Your task to perform on an android device: delete location history Image 0: 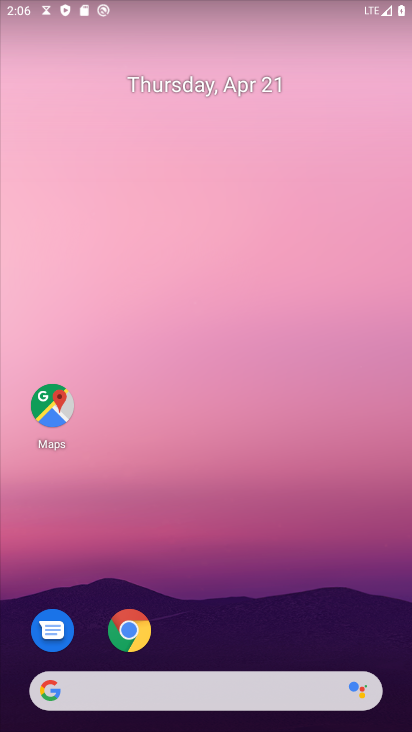
Step 0: drag from (338, 634) to (356, 51)
Your task to perform on an android device: delete location history Image 1: 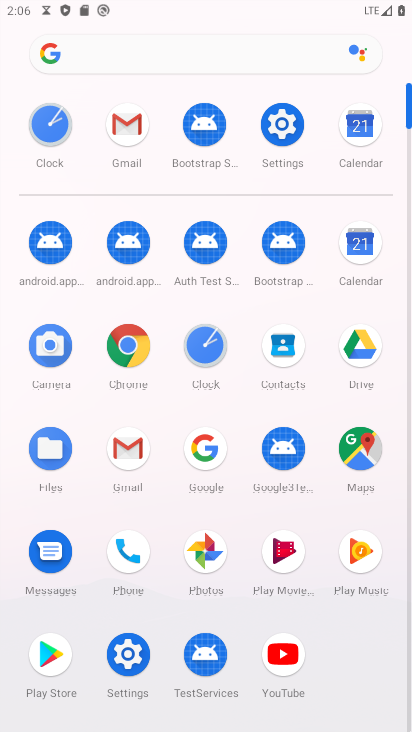
Step 1: click (351, 454)
Your task to perform on an android device: delete location history Image 2: 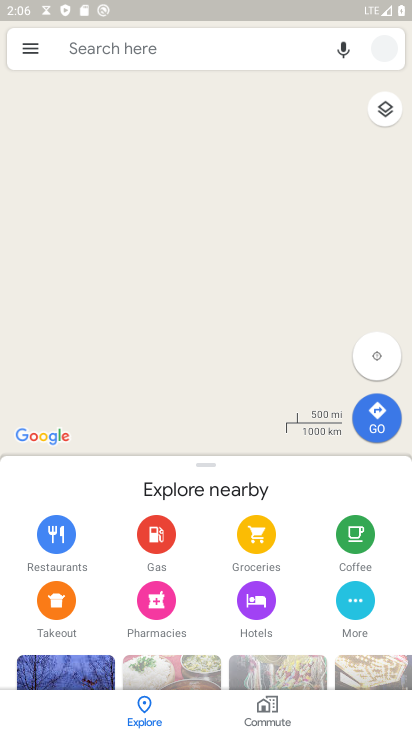
Step 2: click (31, 53)
Your task to perform on an android device: delete location history Image 3: 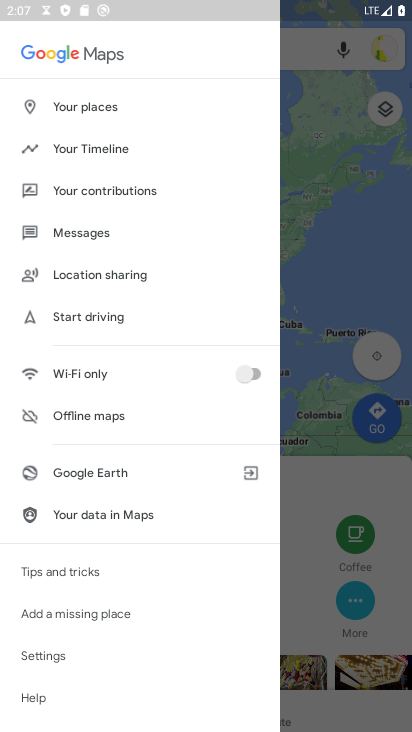
Step 3: click (78, 146)
Your task to perform on an android device: delete location history Image 4: 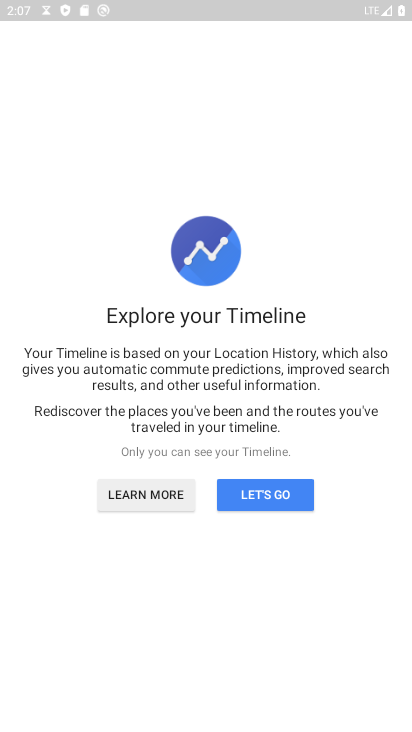
Step 4: click (259, 495)
Your task to perform on an android device: delete location history Image 5: 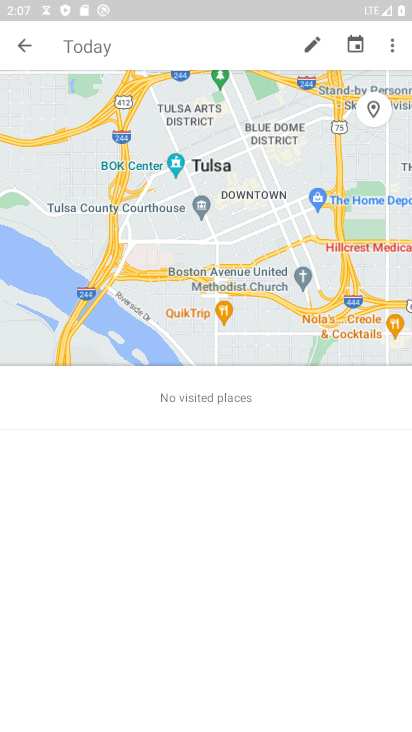
Step 5: click (394, 49)
Your task to perform on an android device: delete location history Image 6: 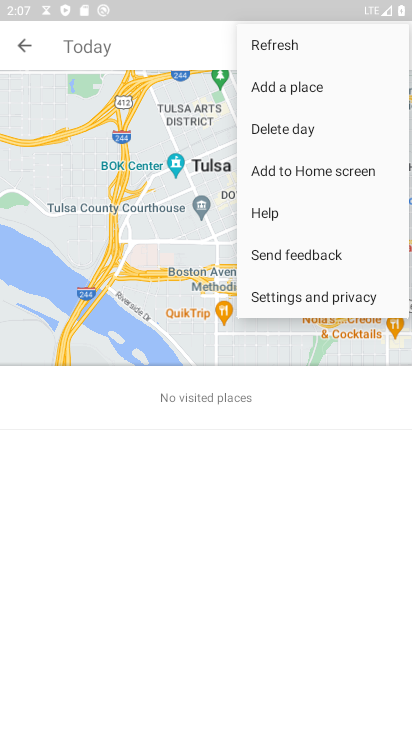
Step 6: click (291, 296)
Your task to perform on an android device: delete location history Image 7: 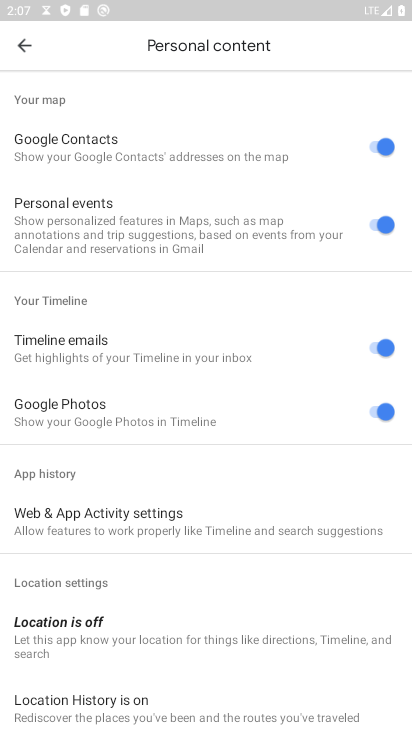
Step 7: drag from (152, 603) to (169, 191)
Your task to perform on an android device: delete location history Image 8: 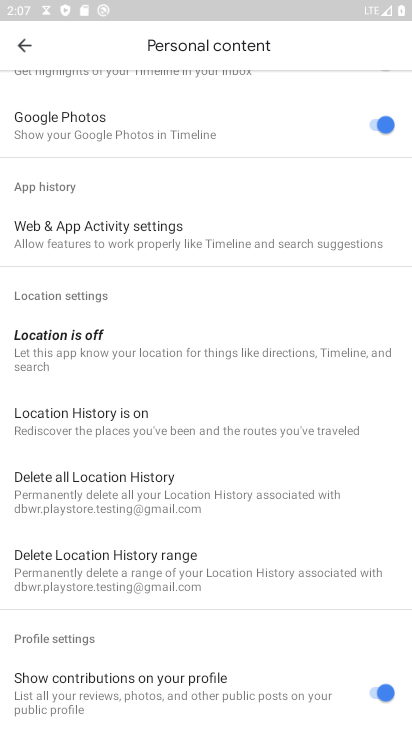
Step 8: click (85, 485)
Your task to perform on an android device: delete location history Image 9: 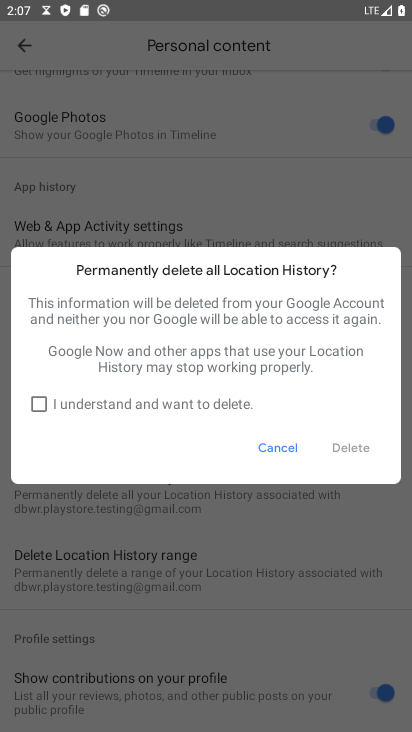
Step 9: click (40, 407)
Your task to perform on an android device: delete location history Image 10: 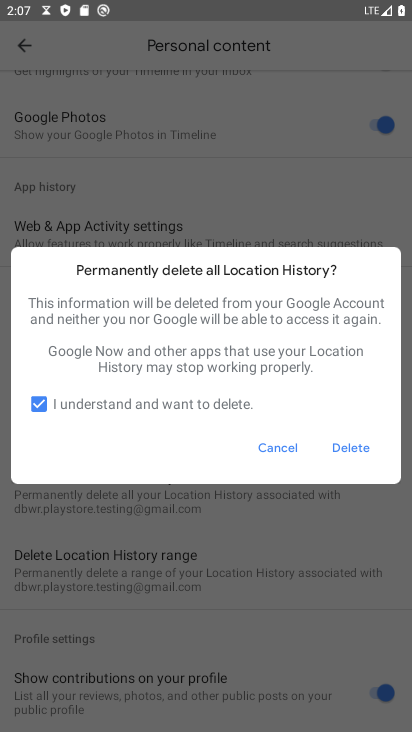
Step 10: click (363, 446)
Your task to perform on an android device: delete location history Image 11: 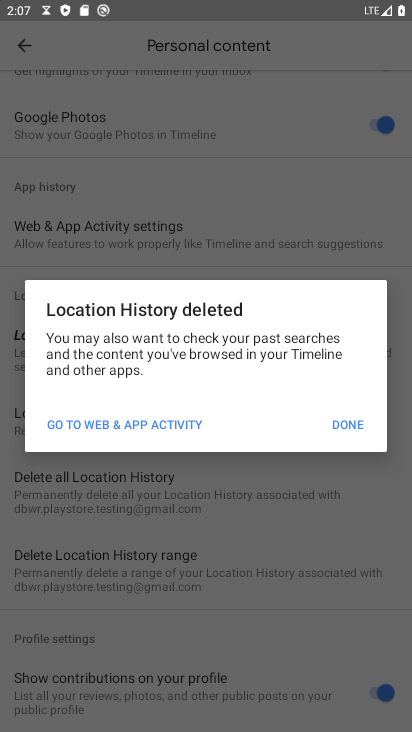
Step 11: click (367, 427)
Your task to perform on an android device: delete location history Image 12: 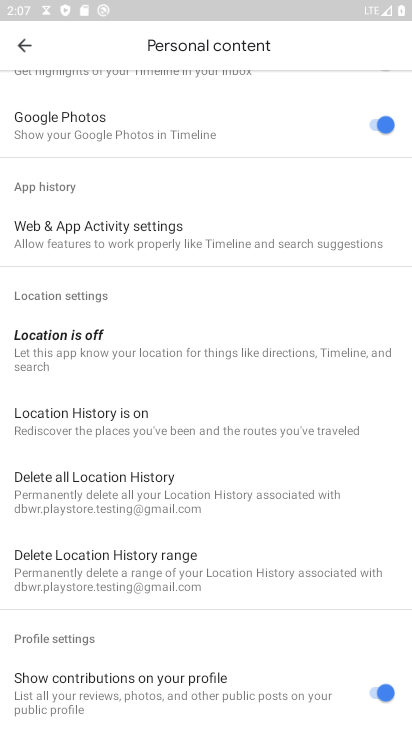
Step 12: task complete